Your task to perform on an android device: Go to Android settings Image 0: 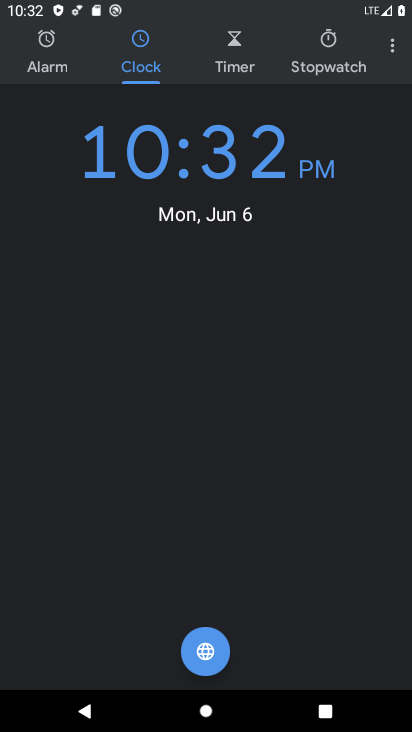
Step 0: press home button
Your task to perform on an android device: Go to Android settings Image 1: 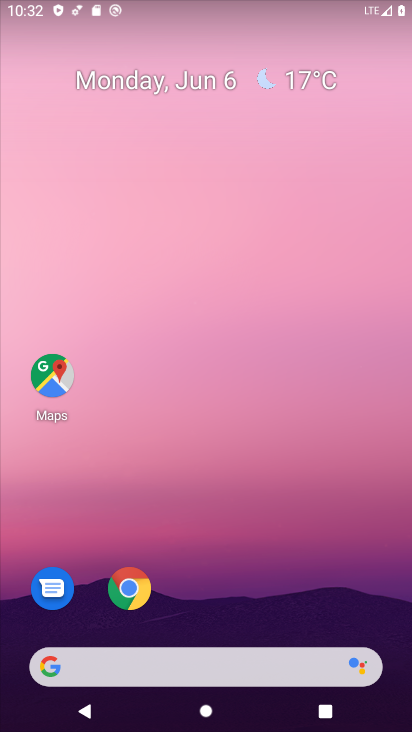
Step 1: drag from (226, 640) to (301, 173)
Your task to perform on an android device: Go to Android settings Image 2: 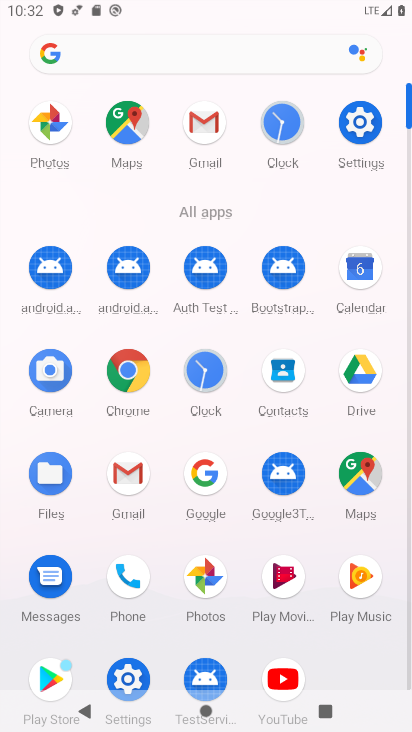
Step 2: drag from (219, 647) to (260, 401)
Your task to perform on an android device: Go to Android settings Image 3: 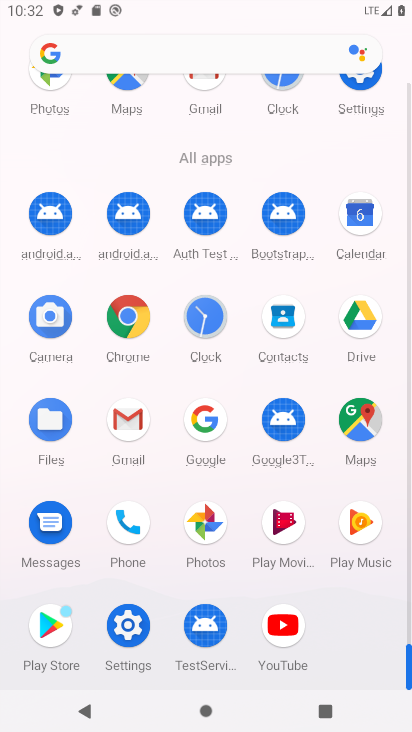
Step 3: click (128, 636)
Your task to perform on an android device: Go to Android settings Image 4: 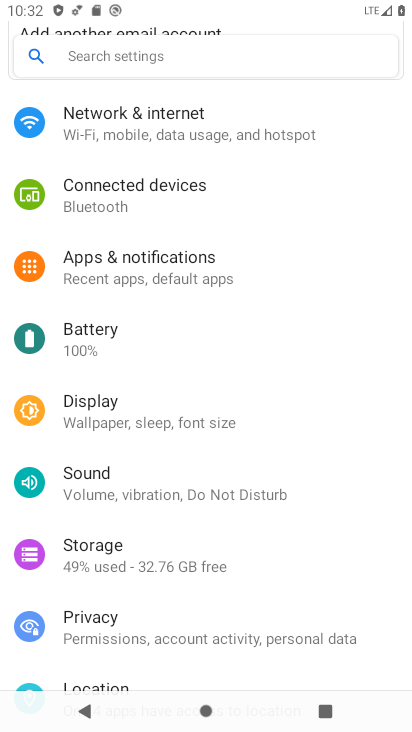
Step 4: task complete